Your task to perform on an android device: install app "Contacts" Image 0: 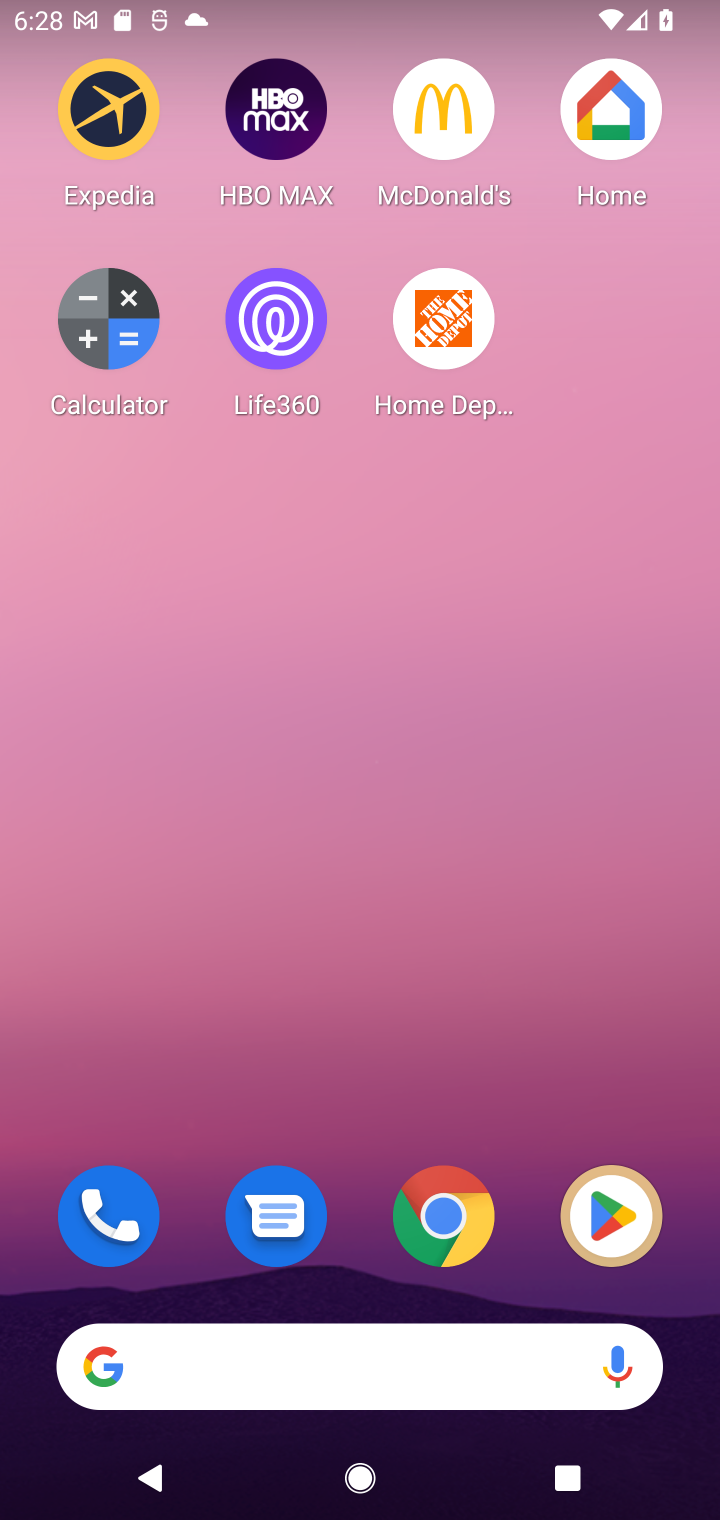
Step 0: drag from (303, 1239) to (395, 402)
Your task to perform on an android device: install app "Contacts" Image 1: 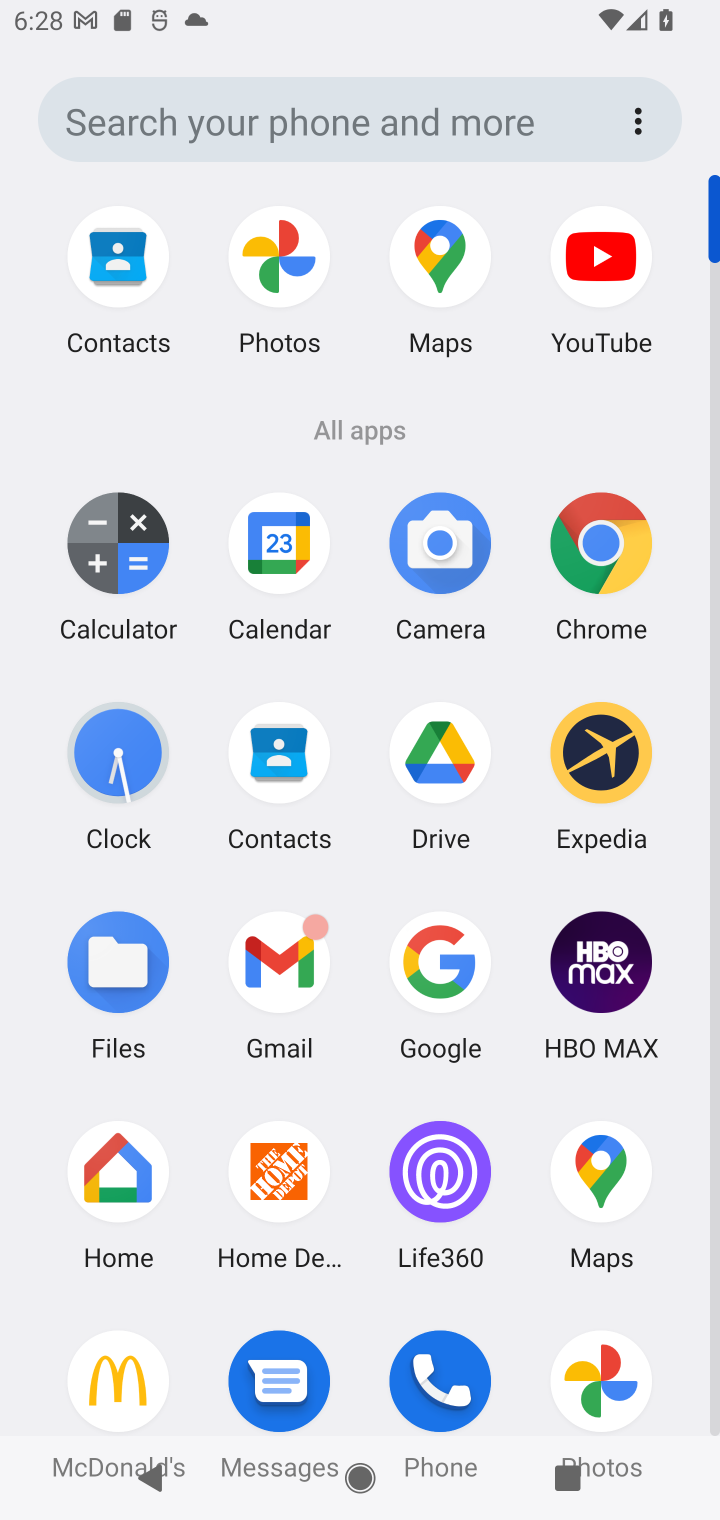
Step 1: click (261, 776)
Your task to perform on an android device: install app "Contacts" Image 2: 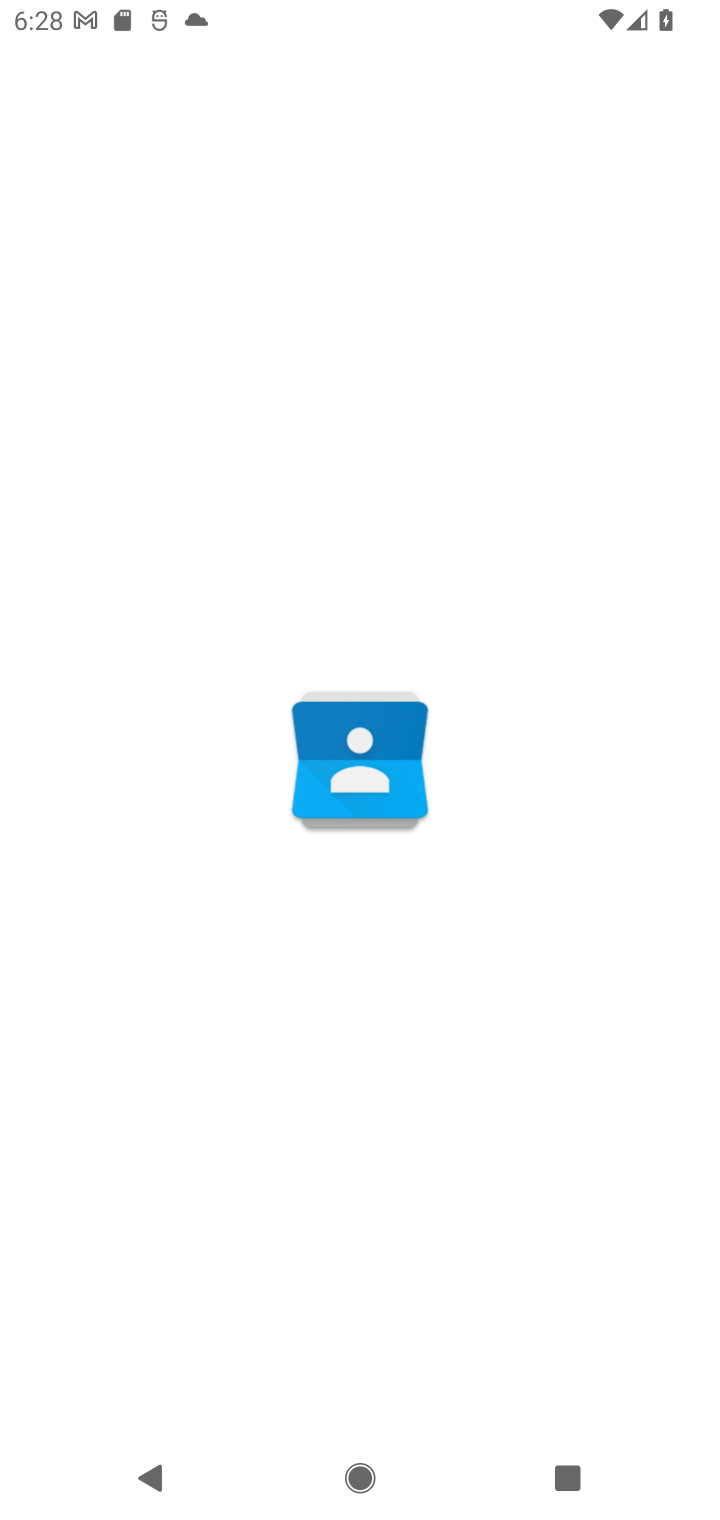
Step 2: click (277, 783)
Your task to perform on an android device: install app "Contacts" Image 3: 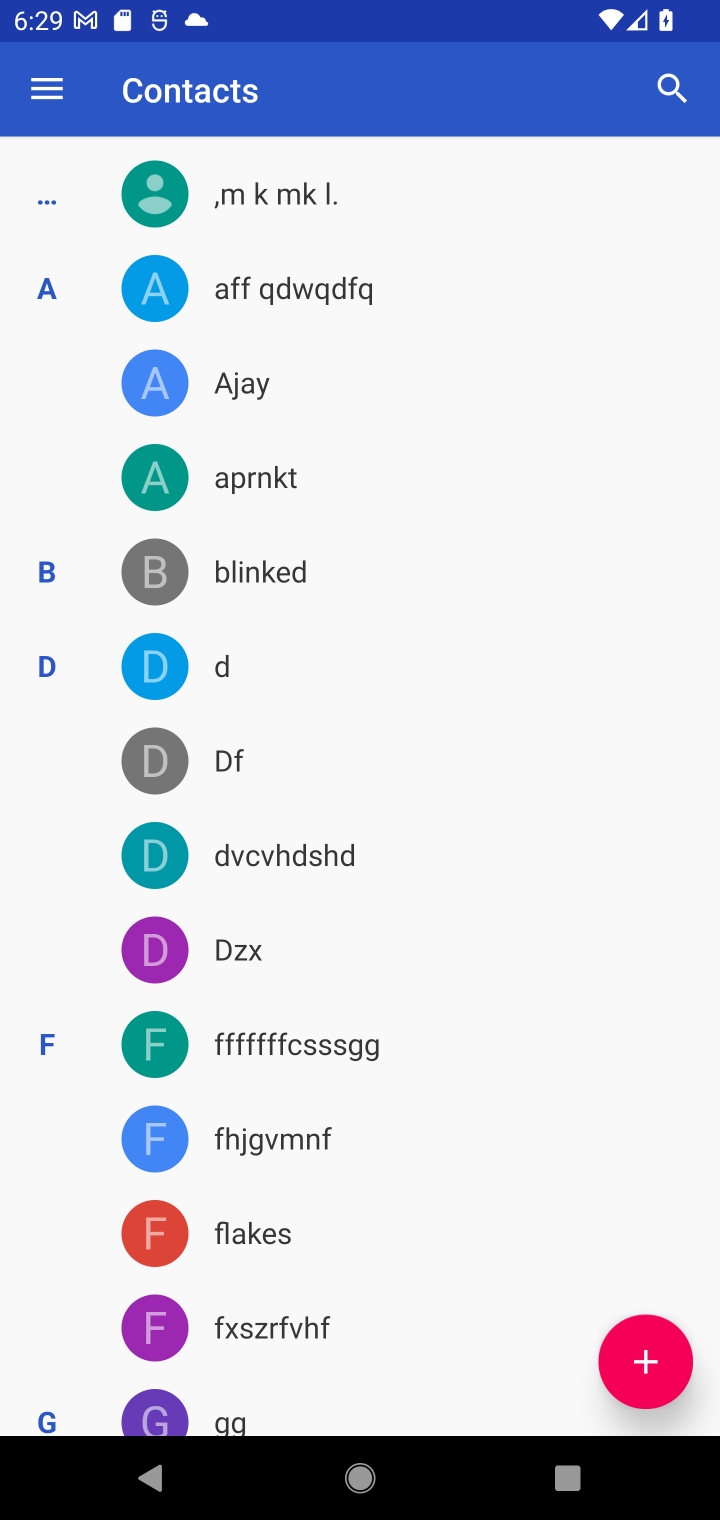
Step 3: task complete